Your task to perform on an android device: open wifi settings Image 0: 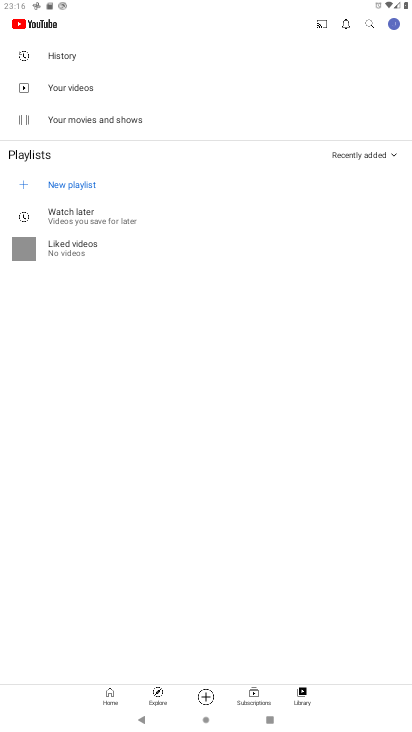
Step 0: press home button
Your task to perform on an android device: open wifi settings Image 1: 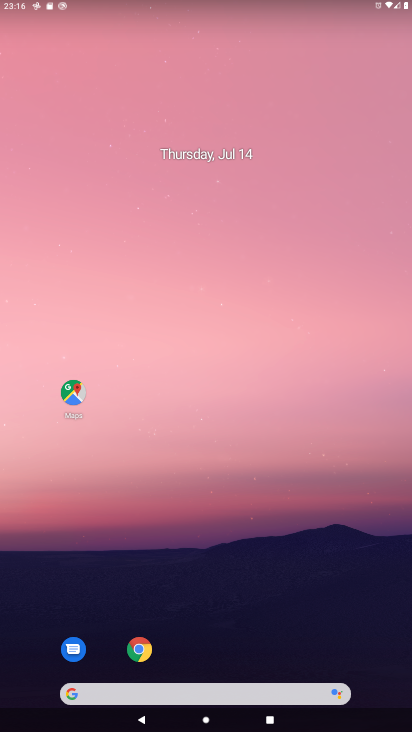
Step 1: drag from (179, 704) to (190, 81)
Your task to perform on an android device: open wifi settings Image 2: 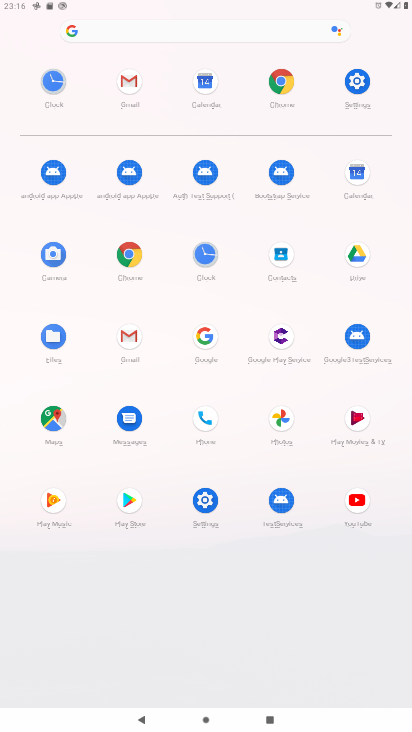
Step 2: click (362, 76)
Your task to perform on an android device: open wifi settings Image 3: 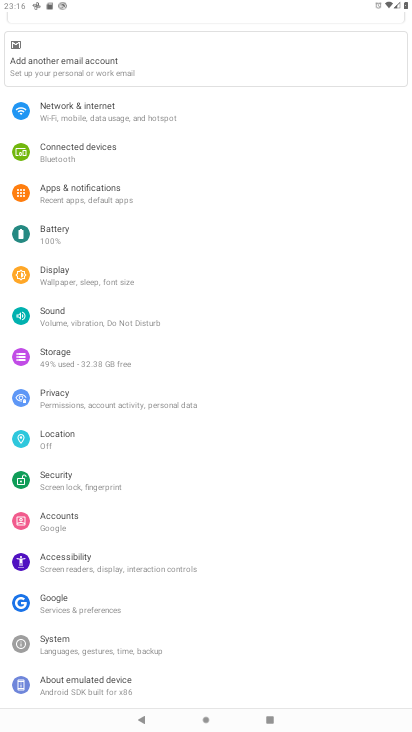
Step 3: click (169, 116)
Your task to perform on an android device: open wifi settings Image 4: 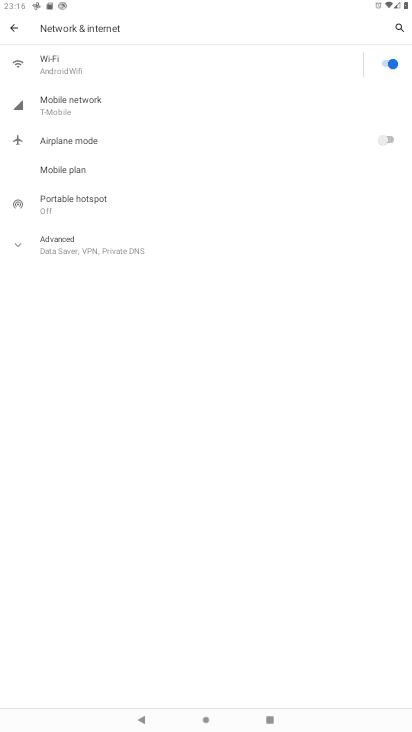
Step 4: click (170, 62)
Your task to perform on an android device: open wifi settings Image 5: 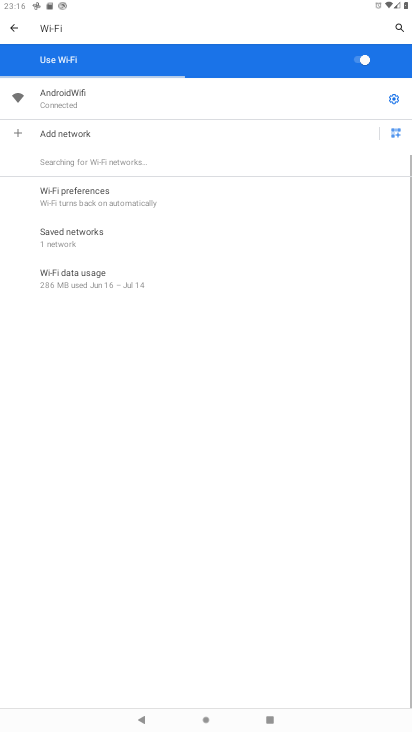
Step 5: click (394, 99)
Your task to perform on an android device: open wifi settings Image 6: 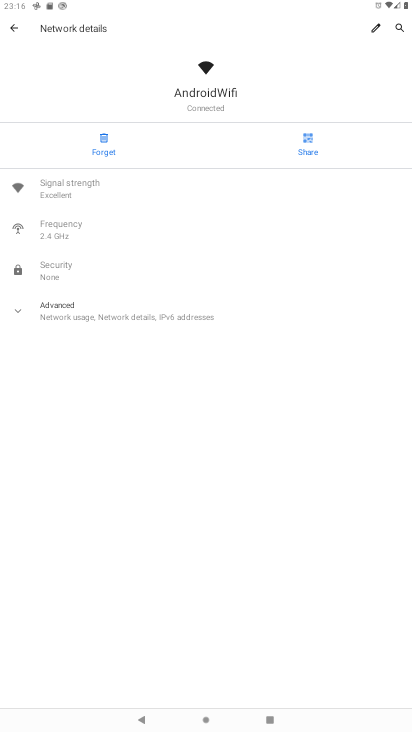
Step 6: task complete